Your task to perform on an android device: Open wifi settings Image 0: 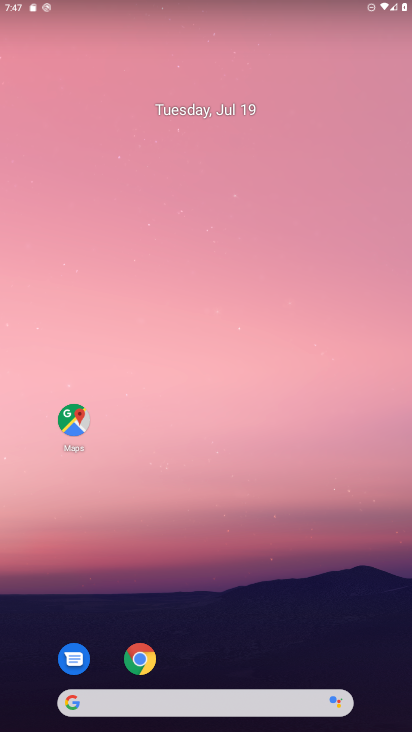
Step 0: click (204, 539)
Your task to perform on an android device: Open wifi settings Image 1: 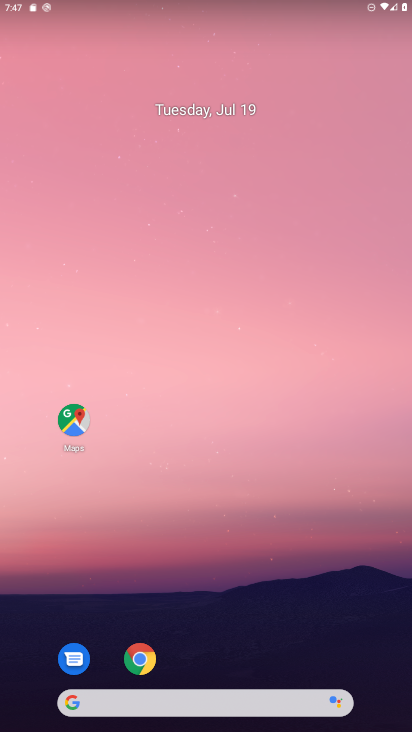
Step 1: drag from (202, 614) to (199, 163)
Your task to perform on an android device: Open wifi settings Image 2: 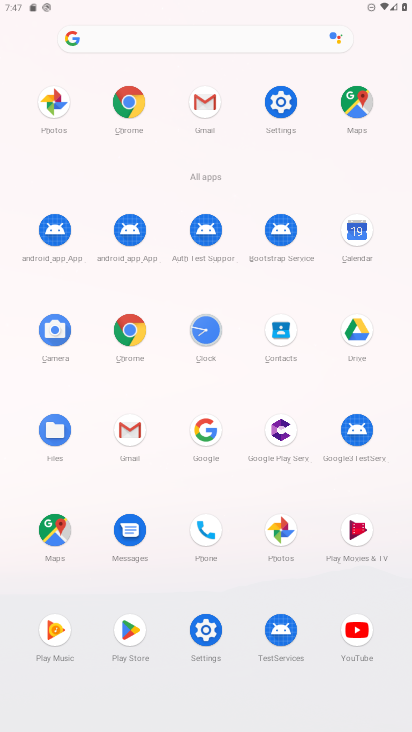
Step 2: click (284, 100)
Your task to perform on an android device: Open wifi settings Image 3: 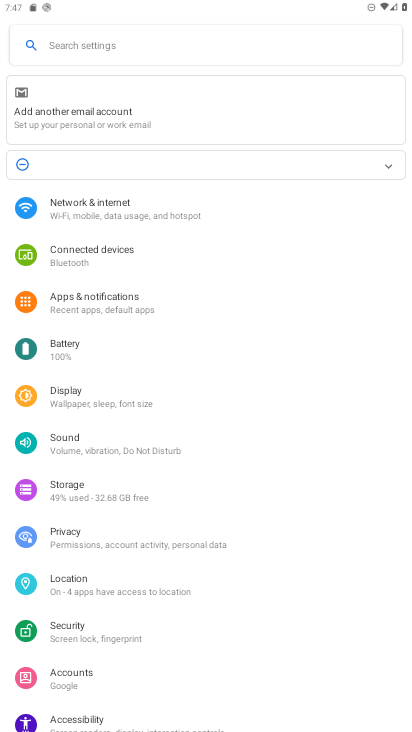
Step 3: click (117, 202)
Your task to perform on an android device: Open wifi settings Image 4: 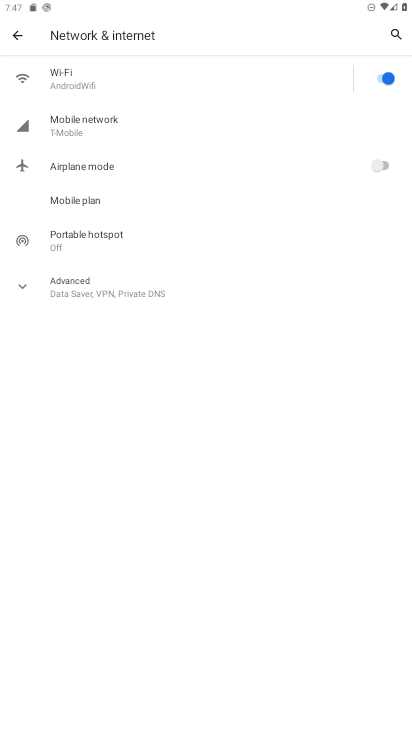
Step 4: click (88, 89)
Your task to perform on an android device: Open wifi settings Image 5: 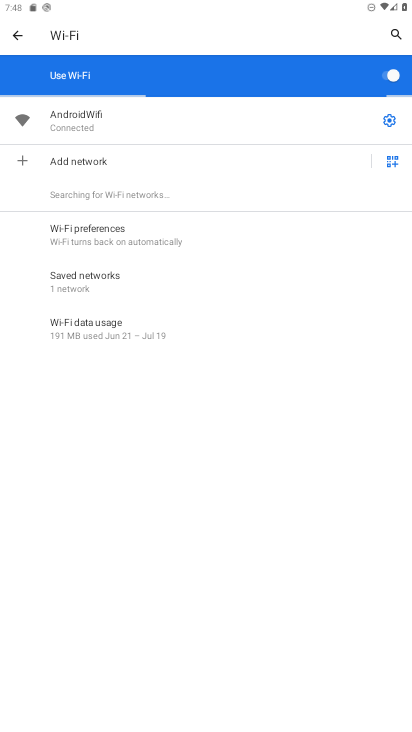
Step 5: task complete